Your task to perform on an android device: check battery use Image 0: 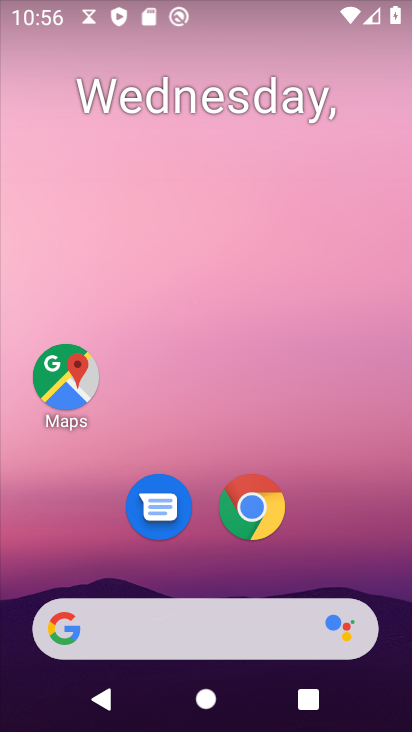
Step 0: drag from (263, 631) to (301, 138)
Your task to perform on an android device: check battery use Image 1: 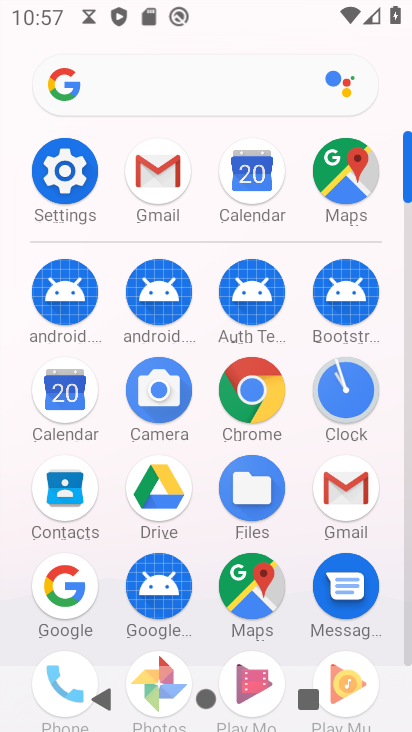
Step 1: click (94, 163)
Your task to perform on an android device: check battery use Image 2: 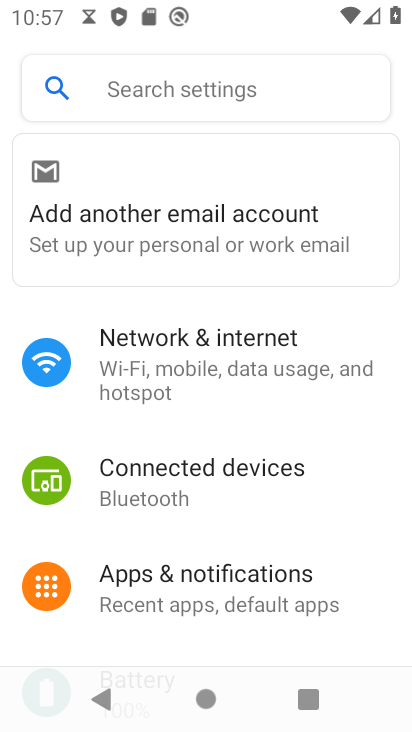
Step 2: drag from (250, 463) to (231, 333)
Your task to perform on an android device: check battery use Image 3: 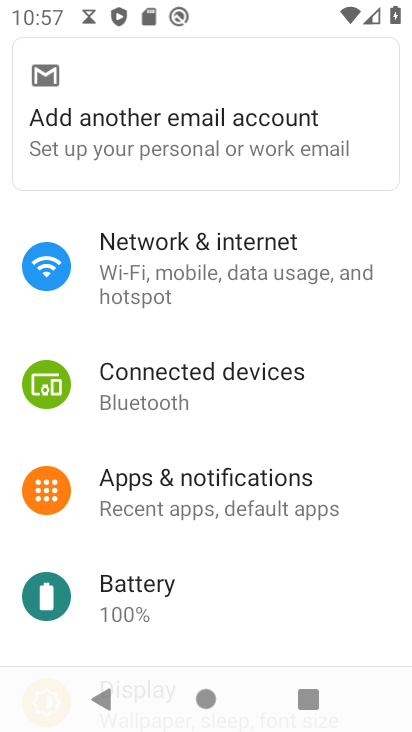
Step 3: click (162, 566)
Your task to perform on an android device: check battery use Image 4: 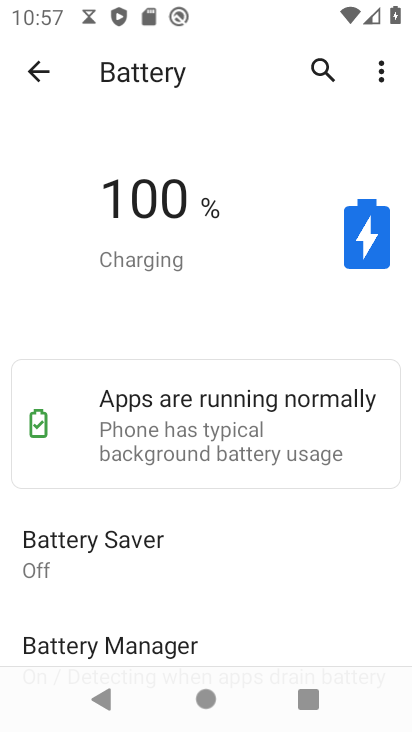
Step 4: task complete